Your task to perform on an android device: Open calendar and show me the fourth week of next month Image 0: 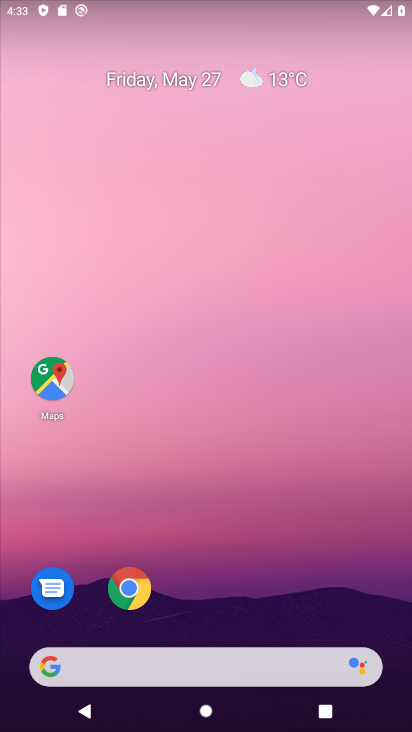
Step 0: drag from (241, 623) to (208, 70)
Your task to perform on an android device: Open calendar and show me the fourth week of next month Image 1: 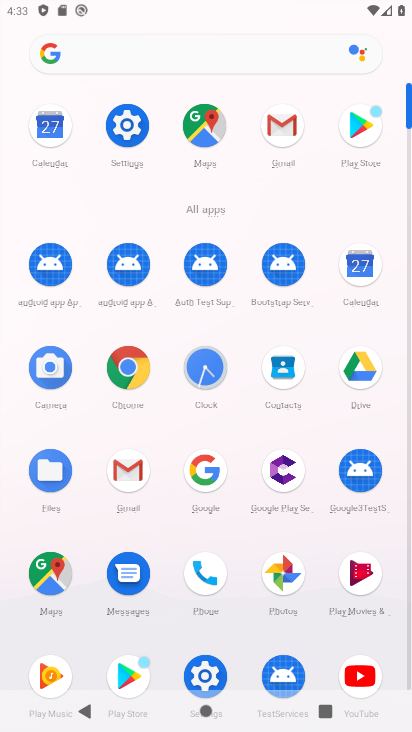
Step 1: click (365, 274)
Your task to perform on an android device: Open calendar and show me the fourth week of next month Image 2: 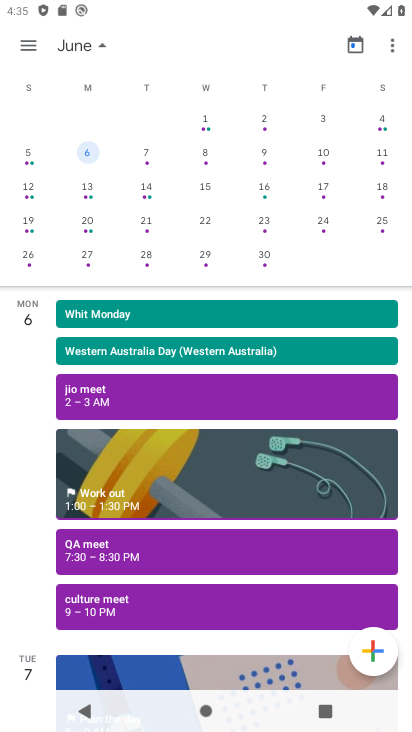
Step 2: click (84, 224)
Your task to perform on an android device: Open calendar and show me the fourth week of next month Image 3: 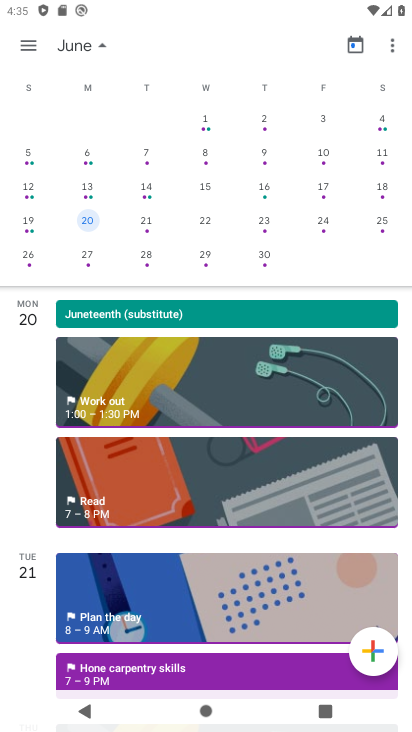
Step 3: task complete